Your task to perform on an android device: turn on notifications settings in the gmail app Image 0: 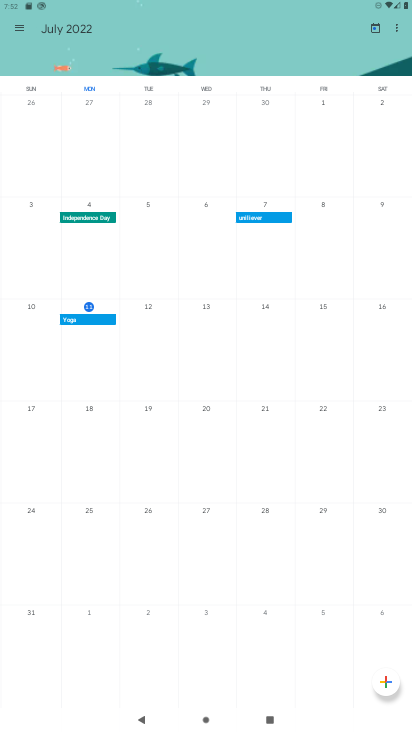
Step 0: press home button
Your task to perform on an android device: turn on notifications settings in the gmail app Image 1: 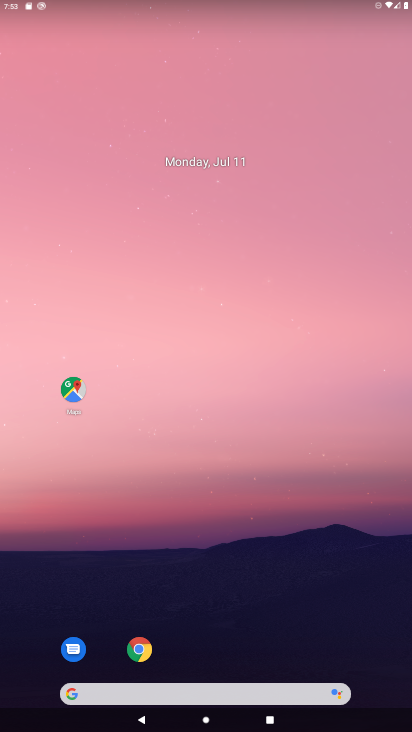
Step 1: drag from (225, 676) to (223, 286)
Your task to perform on an android device: turn on notifications settings in the gmail app Image 2: 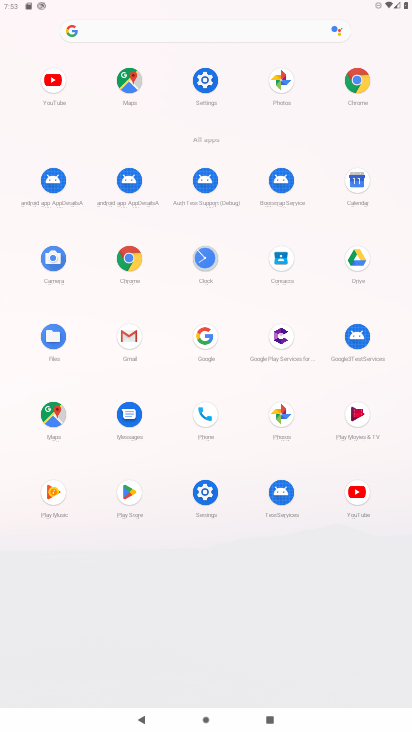
Step 2: click (127, 333)
Your task to perform on an android device: turn on notifications settings in the gmail app Image 3: 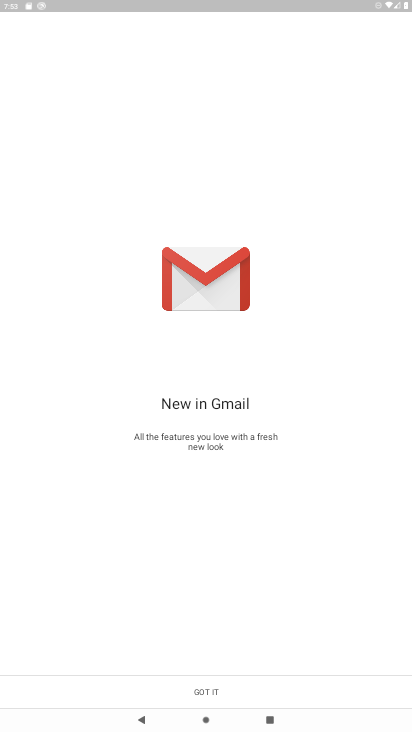
Step 3: click (213, 691)
Your task to perform on an android device: turn on notifications settings in the gmail app Image 4: 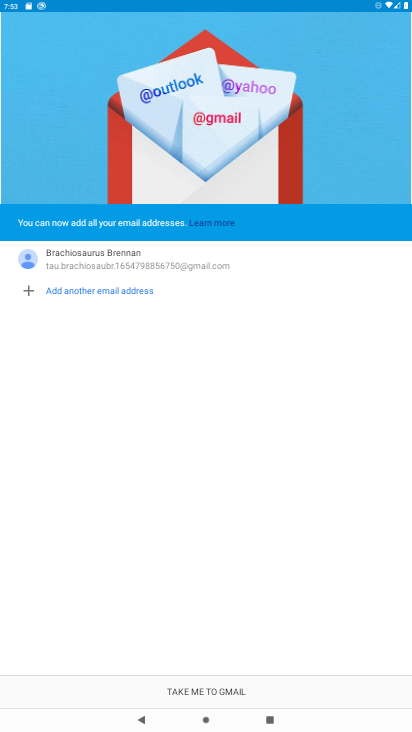
Step 4: click (197, 690)
Your task to perform on an android device: turn on notifications settings in the gmail app Image 5: 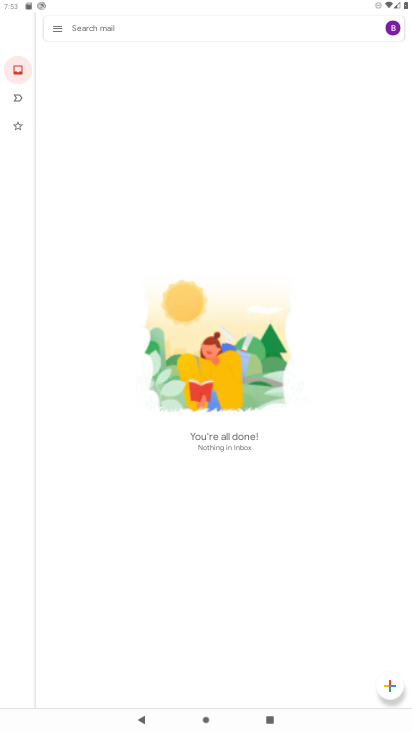
Step 5: click (60, 25)
Your task to perform on an android device: turn on notifications settings in the gmail app Image 6: 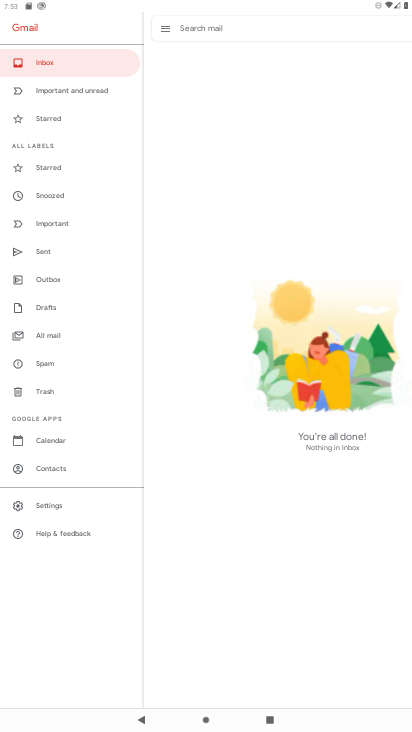
Step 6: click (50, 507)
Your task to perform on an android device: turn on notifications settings in the gmail app Image 7: 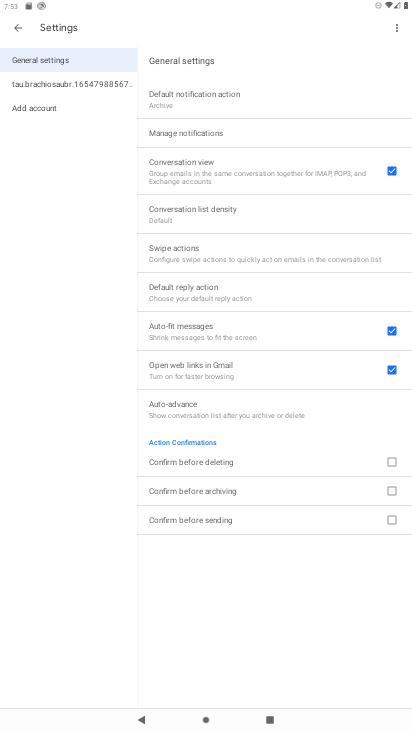
Step 7: click (181, 130)
Your task to perform on an android device: turn on notifications settings in the gmail app Image 8: 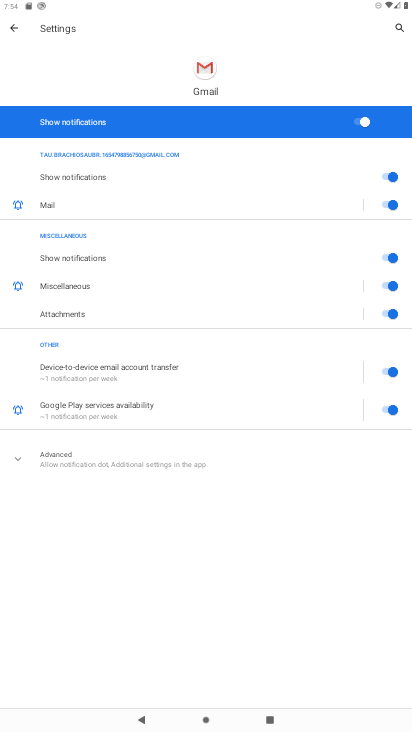
Step 8: task complete